Your task to perform on an android device: Open Android settings Image 0: 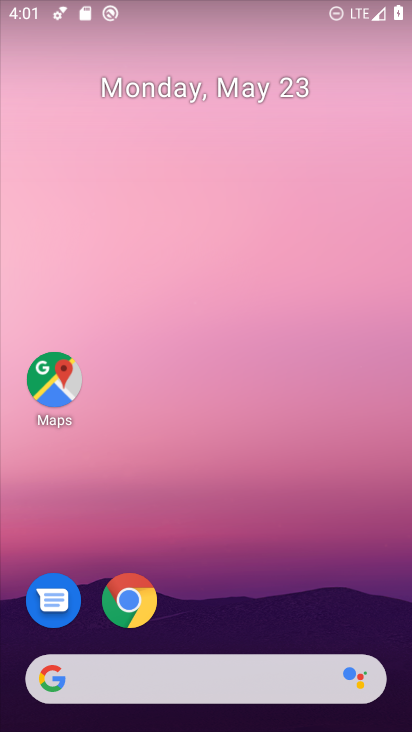
Step 0: drag from (333, 369) to (371, 29)
Your task to perform on an android device: Open Android settings Image 1: 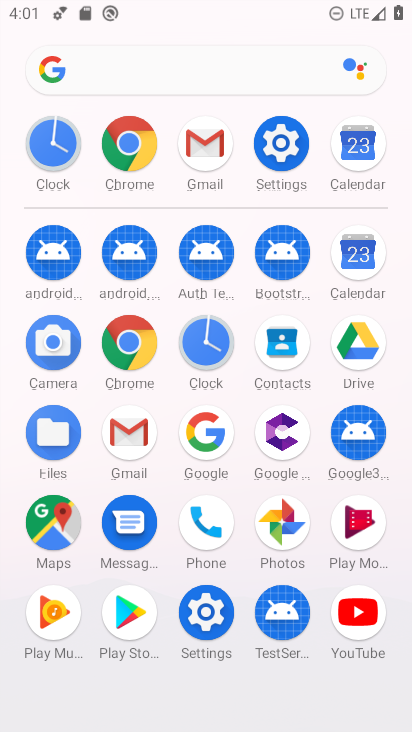
Step 1: click (286, 145)
Your task to perform on an android device: Open Android settings Image 2: 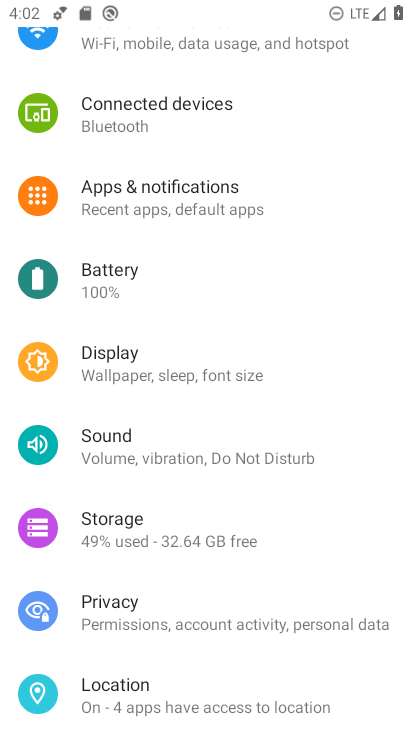
Step 2: task complete